Your task to perform on an android device: turn on the 24-hour format for clock Image 0: 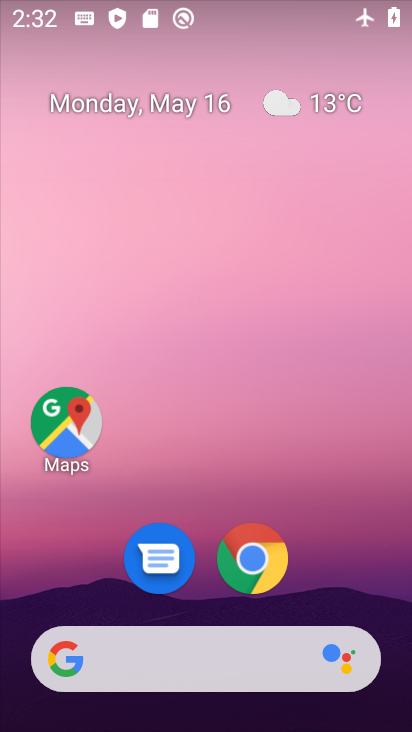
Step 0: drag from (241, 628) to (183, 129)
Your task to perform on an android device: turn on the 24-hour format for clock Image 1: 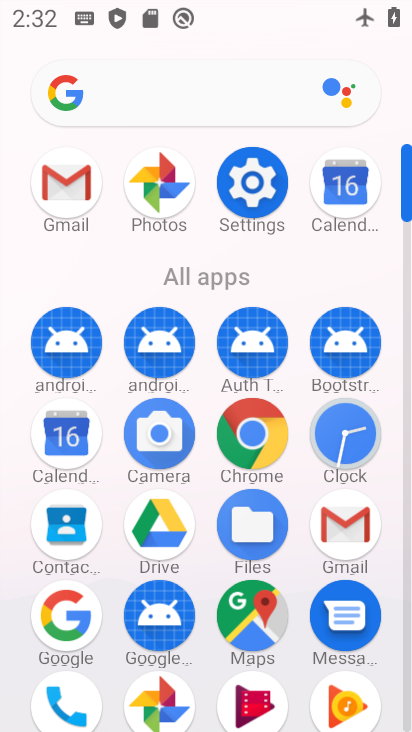
Step 1: click (350, 473)
Your task to perform on an android device: turn on the 24-hour format for clock Image 2: 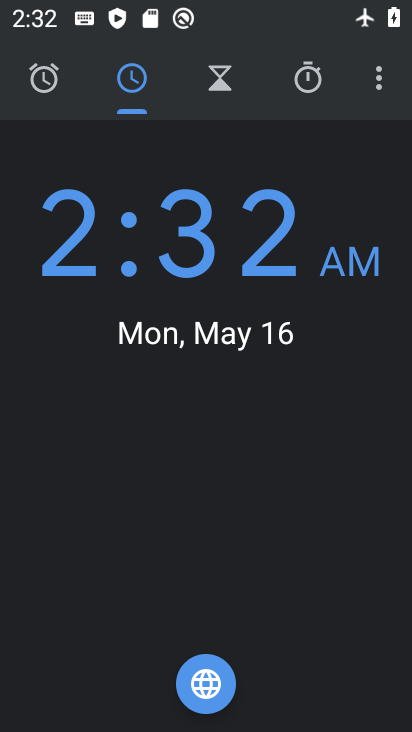
Step 2: click (382, 79)
Your task to perform on an android device: turn on the 24-hour format for clock Image 3: 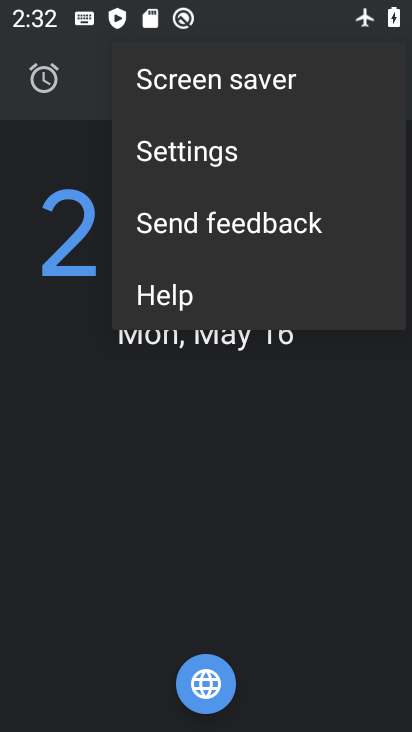
Step 3: click (202, 152)
Your task to perform on an android device: turn on the 24-hour format for clock Image 4: 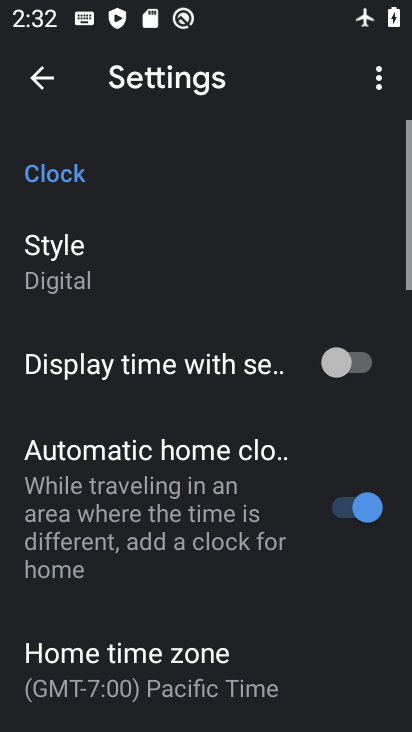
Step 4: drag from (234, 464) to (172, 168)
Your task to perform on an android device: turn on the 24-hour format for clock Image 5: 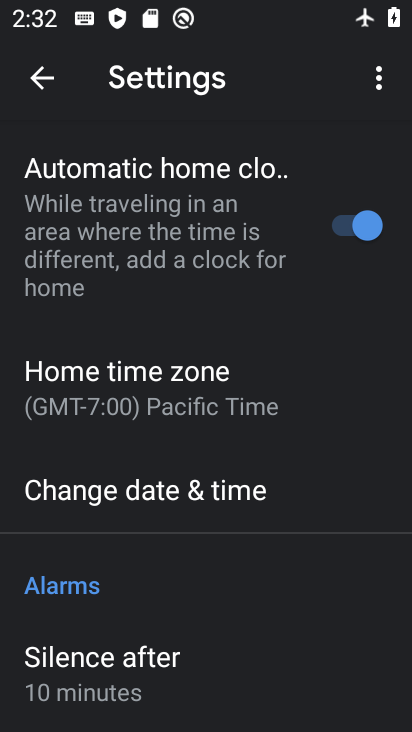
Step 5: click (169, 507)
Your task to perform on an android device: turn on the 24-hour format for clock Image 6: 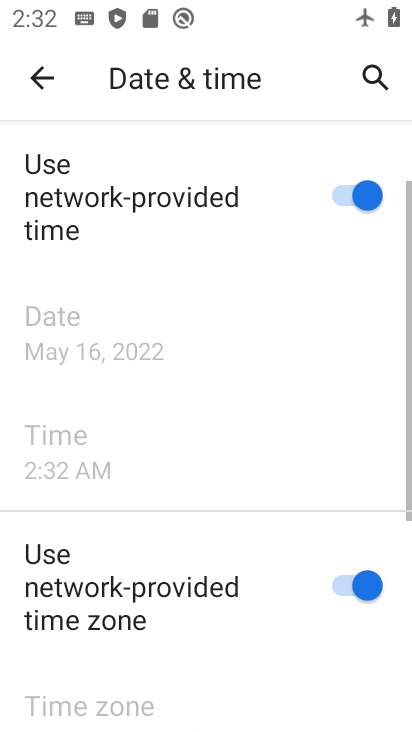
Step 6: drag from (170, 514) to (118, 222)
Your task to perform on an android device: turn on the 24-hour format for clock Image 7: 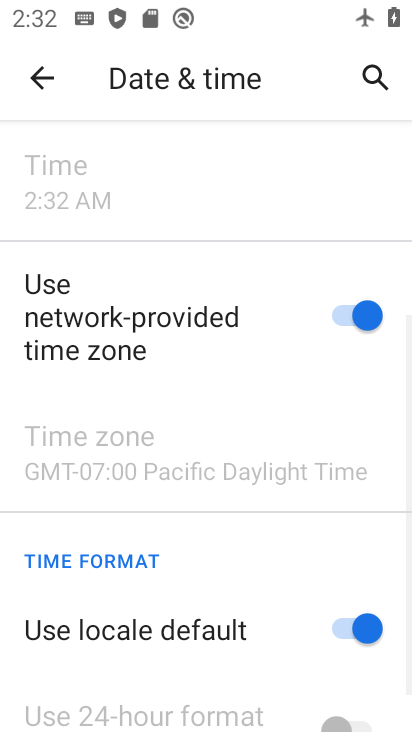
Step 7: drag from (201, 559) to (148, 264)
Your task to perform on an android device: turn on the 24-hour format for clock Image 8: 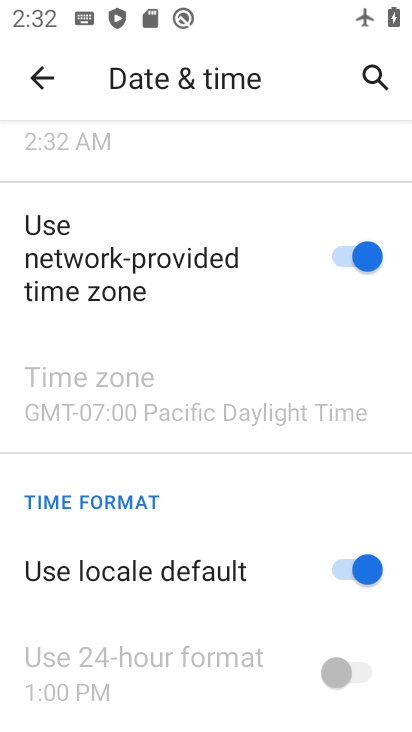
Step 8: click (353, 566)
Your task to perform on an android device: turn on the 24-hour format for clock Image 9: 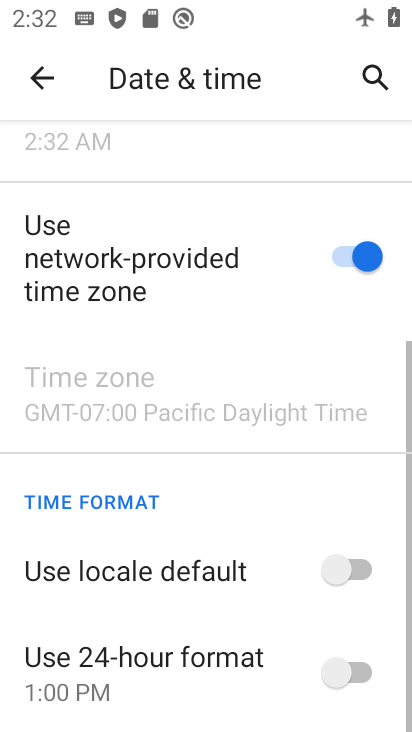
Step 9: click (338, 675)
Your task to perform on an android device: turn on the 24-hour format for clock Image 10: 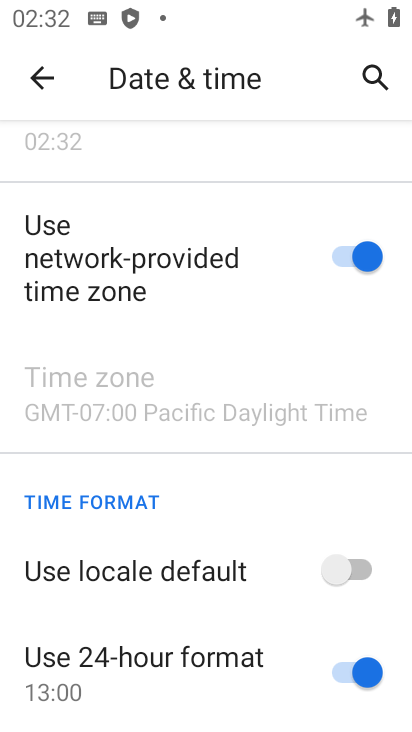
Step 10: task complete